Your task to perform on an android device: Open maps Image 0: 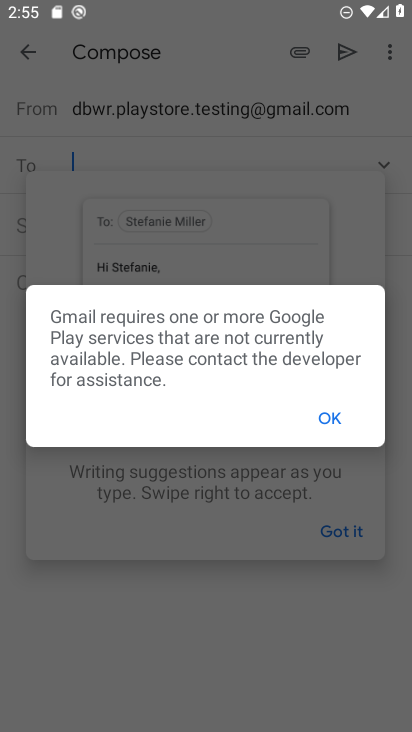
Step 0: press home button
Your task to perform on an android device: Open maps Image 1: 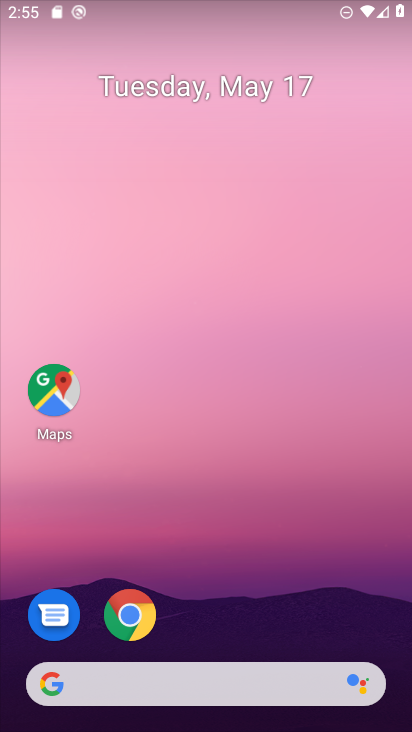
Step 1: drag from (219, 712) to (226, 197)
Your task to perform on an android device: Open maps Image 2: 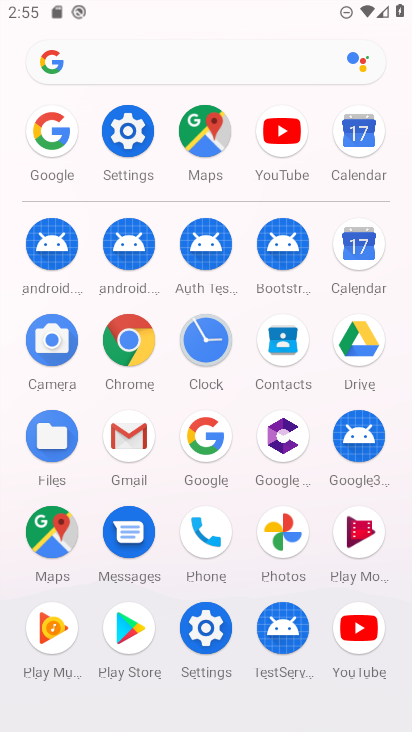
Step 2: click (47, 528)
Your task to perform on an android device: Open maps Image 3: 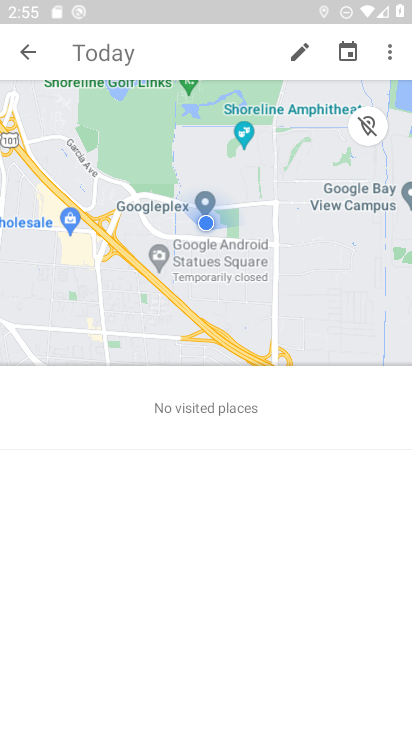
Step 3: task complete